Your task to perform on an android device: change notifications settings Image 0: 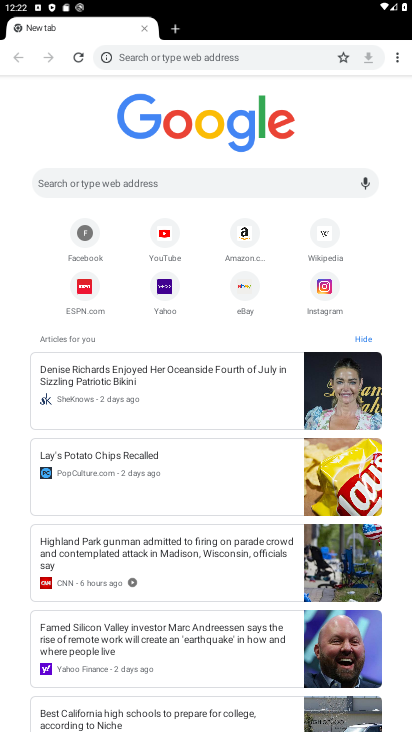
Step 0: drag from (296, 8) to (278, 608)
Your task to perform on an android device: change notifications settings Image 1: 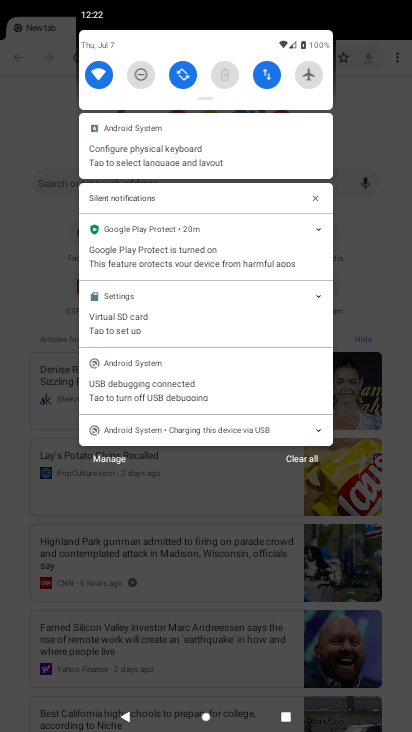
Step 1: drag from (231, 39) to (220, 614)
Your task to perform on an android device: change notifications settings Image 2: 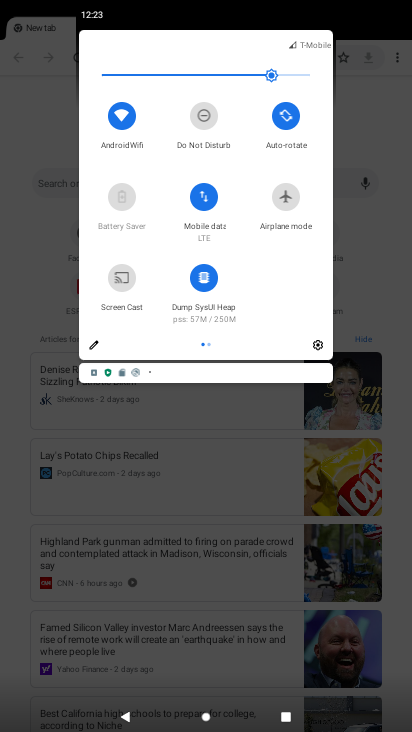
Step 2: click (316, 347)
Your task to perform on an android device: change notifications settings Image 3: 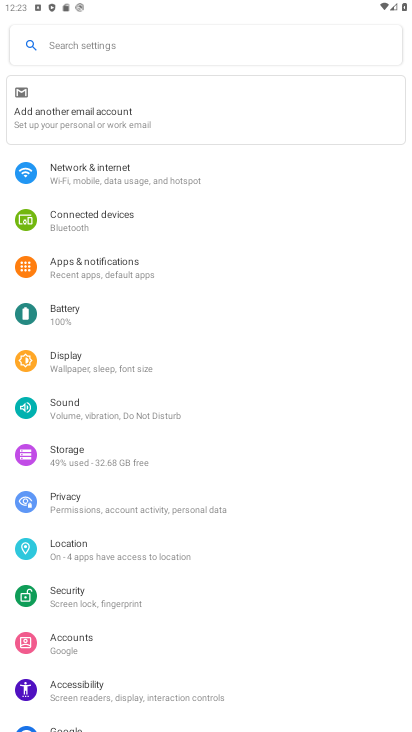
Step 3: click (128, 256)
Your task to perform on an android device: change notifications settings Image 4: 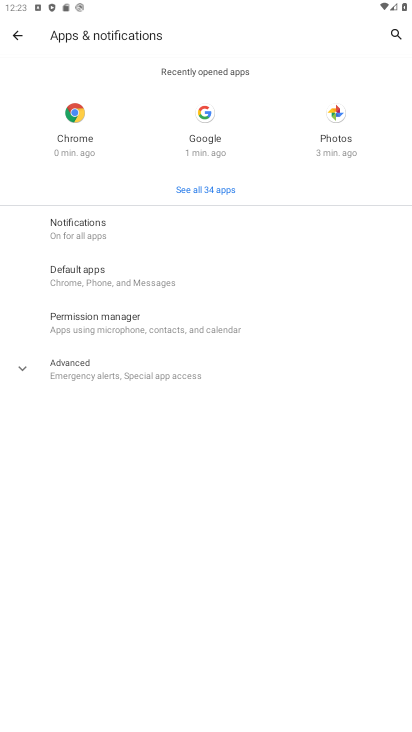
Step 4: click (124, 234)
Your task to perform on an android device: change notifications settings Image 5: 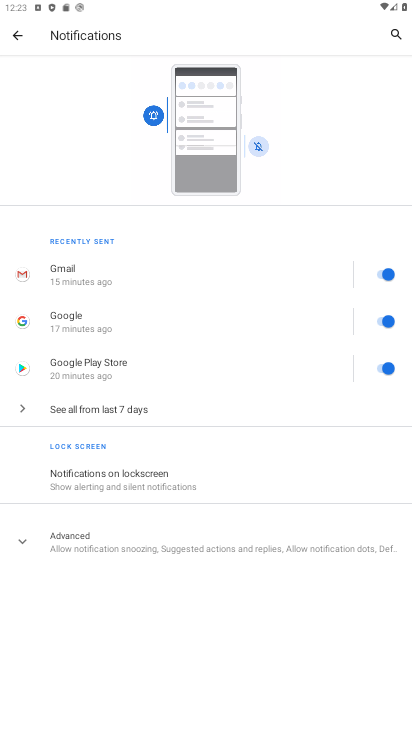
Step 5: click (86, 532)
Your task to perform on an android device: change notifications settings Image 6: 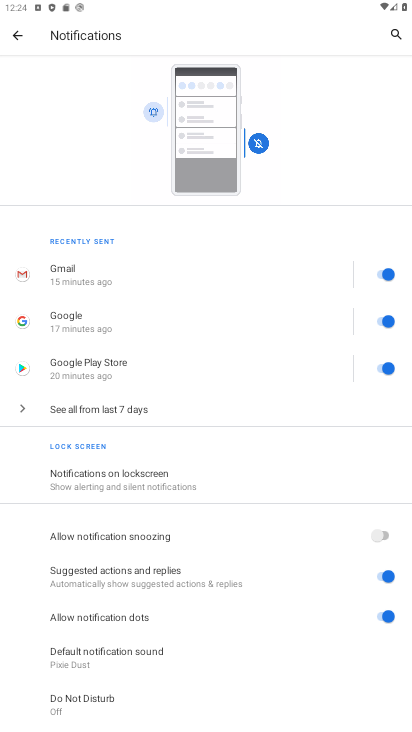
Step 6: click (381, 577)
Your task to perform on an android device: change notifications settings Image 7: 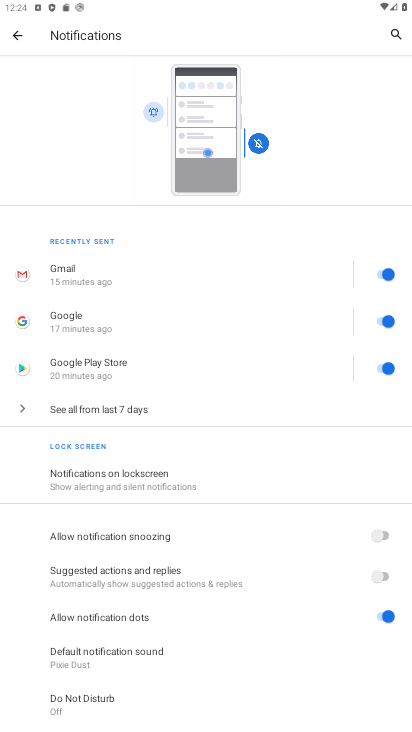
Step 7: click (382, 535)
Your task to perform on an android device: change notifications settings Image 8: 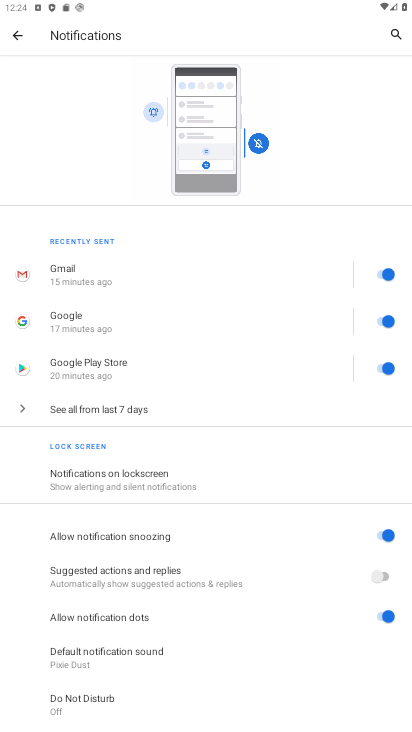
Step 8: task complete